Your task to perform on an android device: Clear the shopping cart on newegg.com. Image 0: 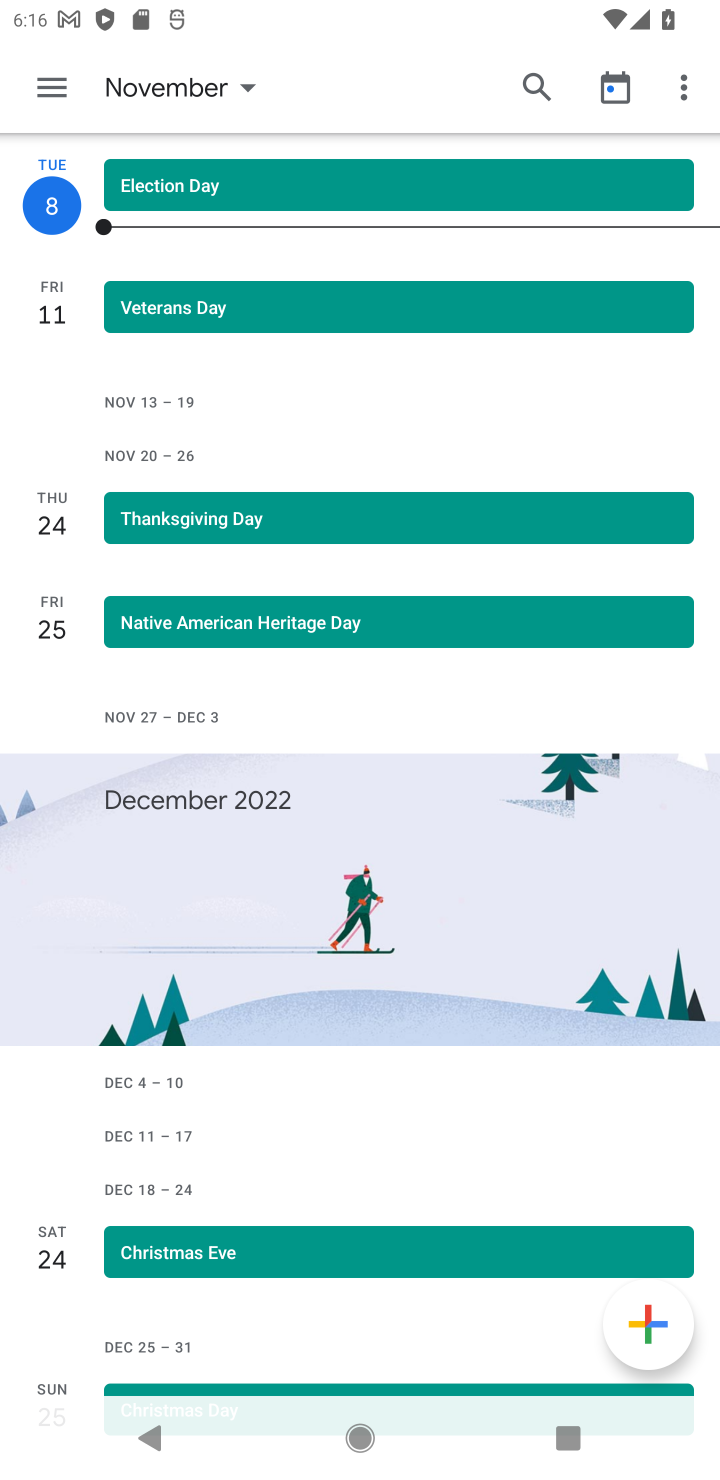
Step 0: press home button
Your task to perform on an android device: Clear the shopping cart on newegg.com. Image 1: 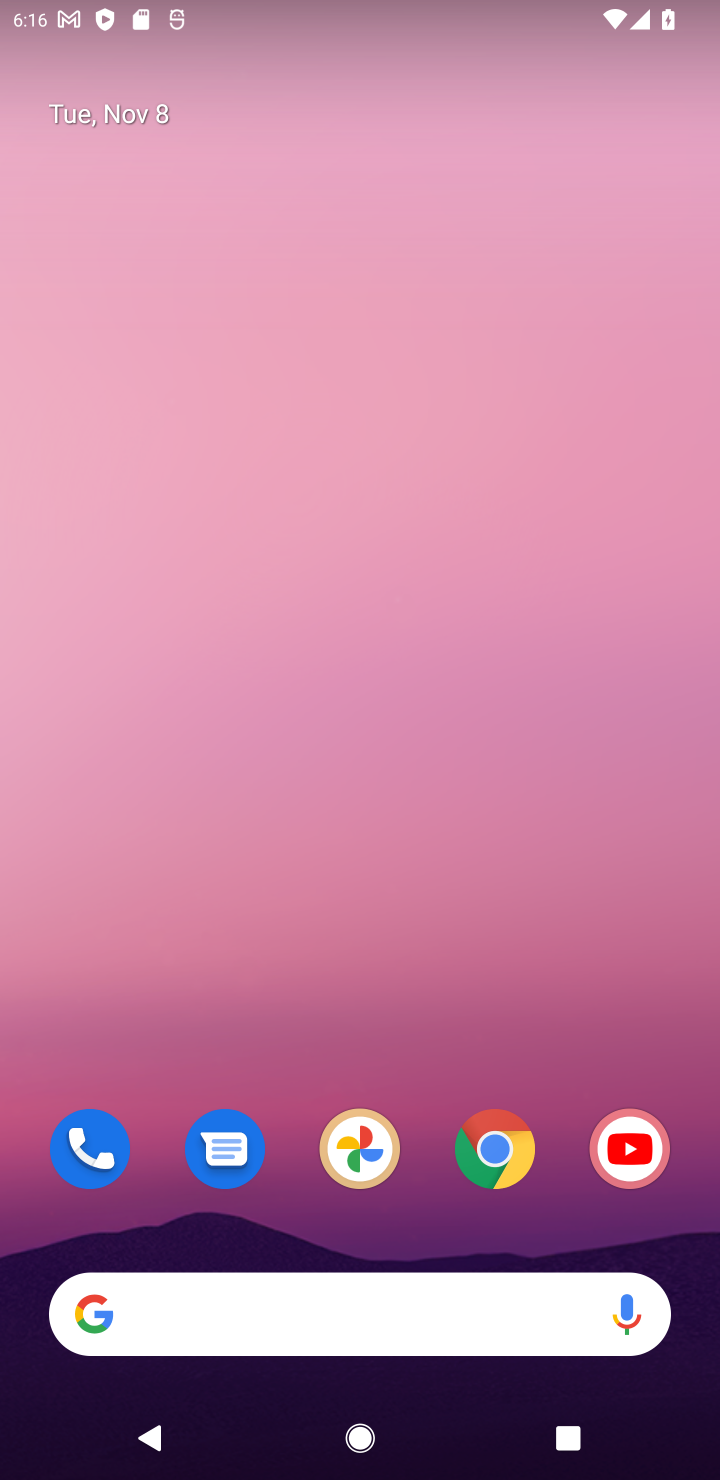
Step 1: click (510, 1177)
Your task to perform on an android device: Clear the shopping cart on newegg.com. Image 2: 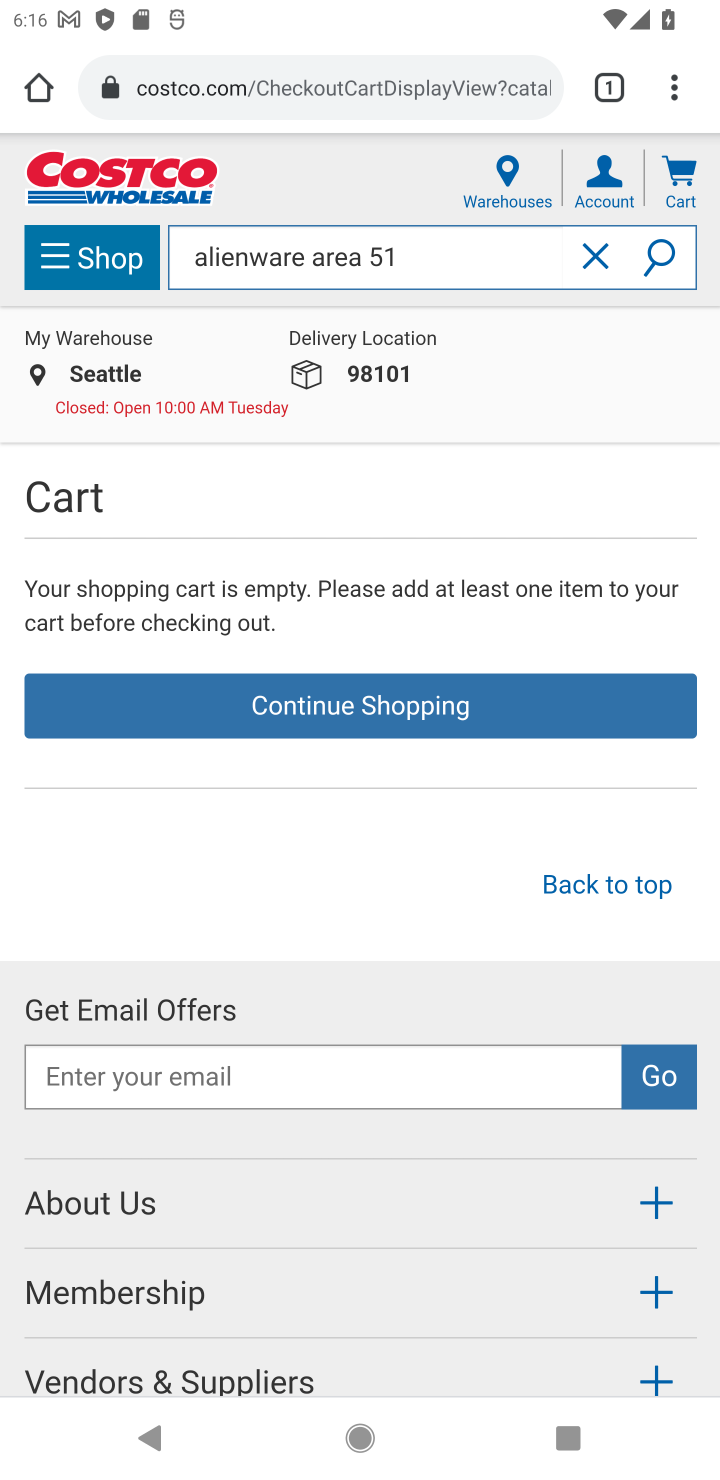
Step 2: click (344, 82)
Your task to perform on an android device: Clear the shopping cart on newegg.com. Image 3: 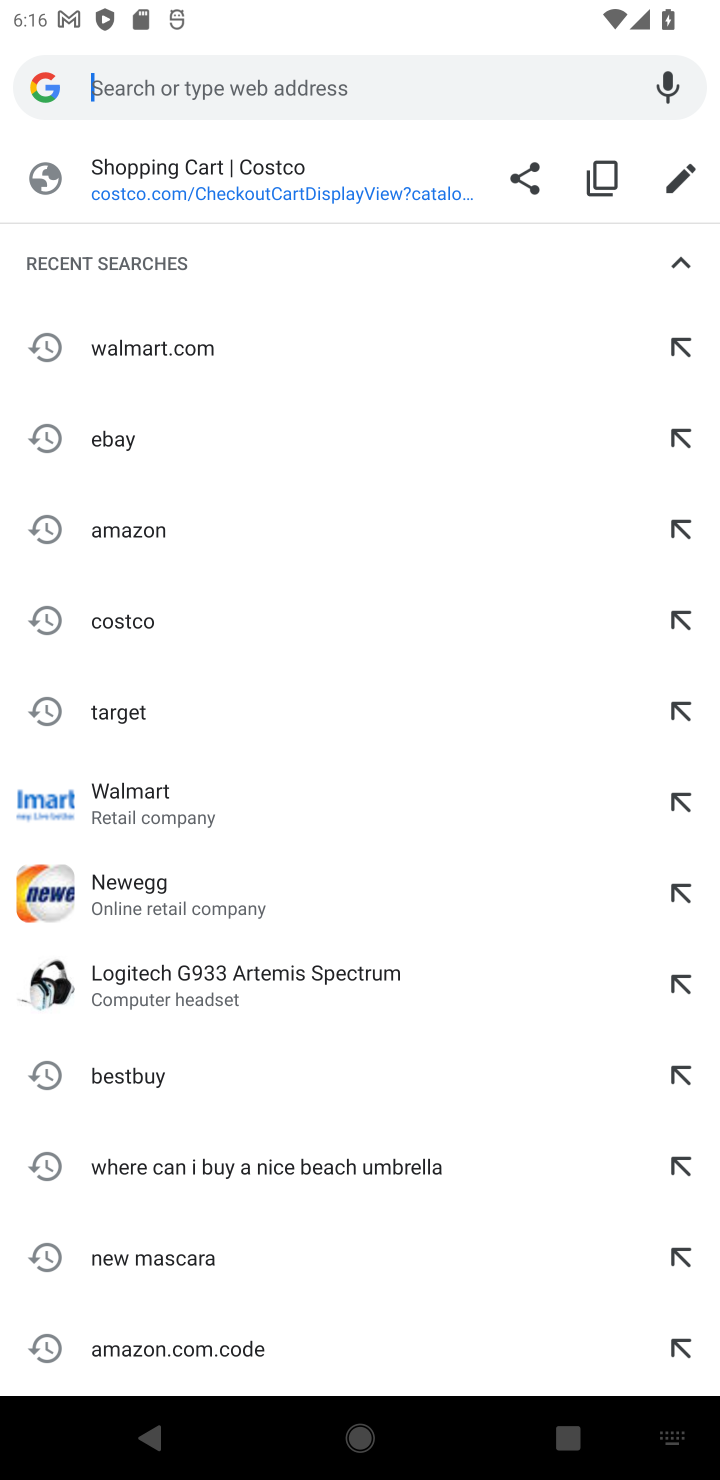
Step 3: type "newegg"
Your task to perform on an android device: Clear the shopping cart on newegg.com. Image 4: 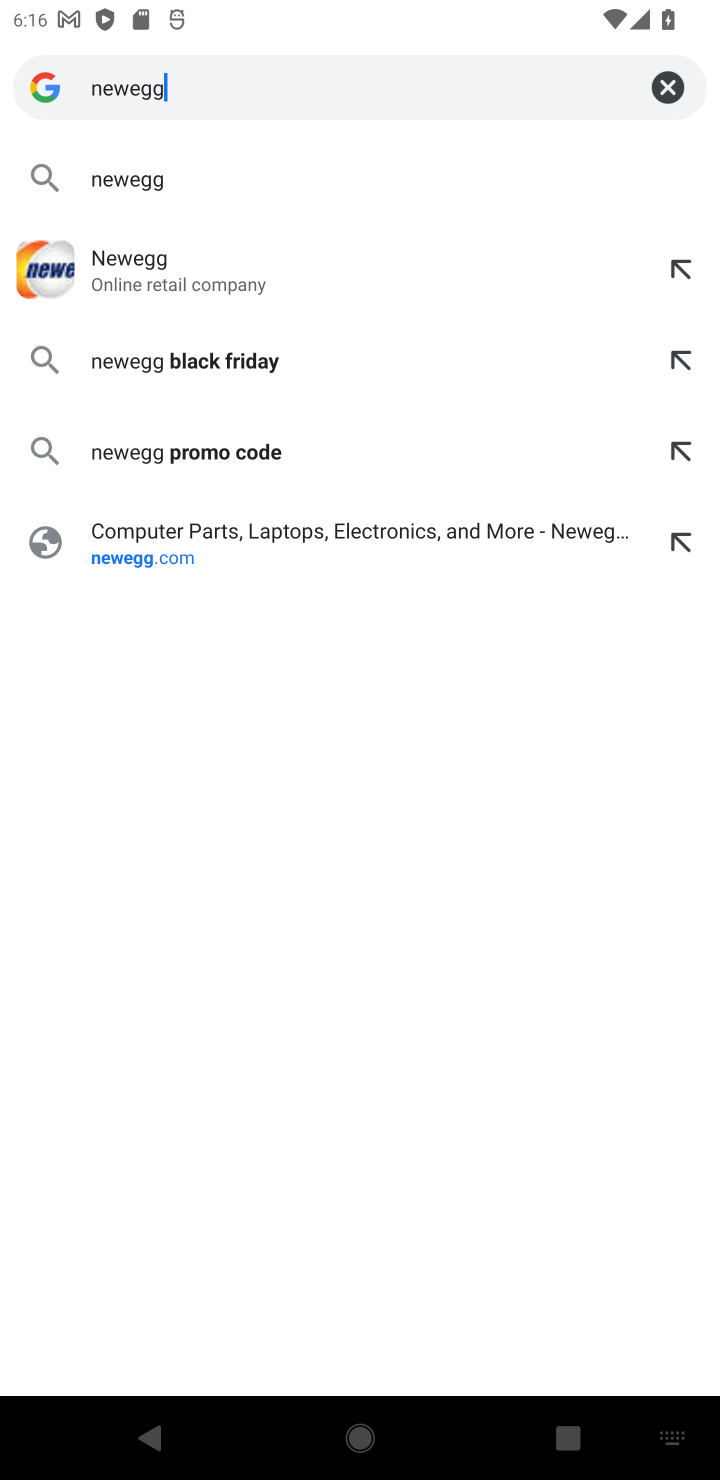
Step 4: click (150, 181)
Your task to perform on an android device: Clear the shopping cart on newegg.com. Image 5: 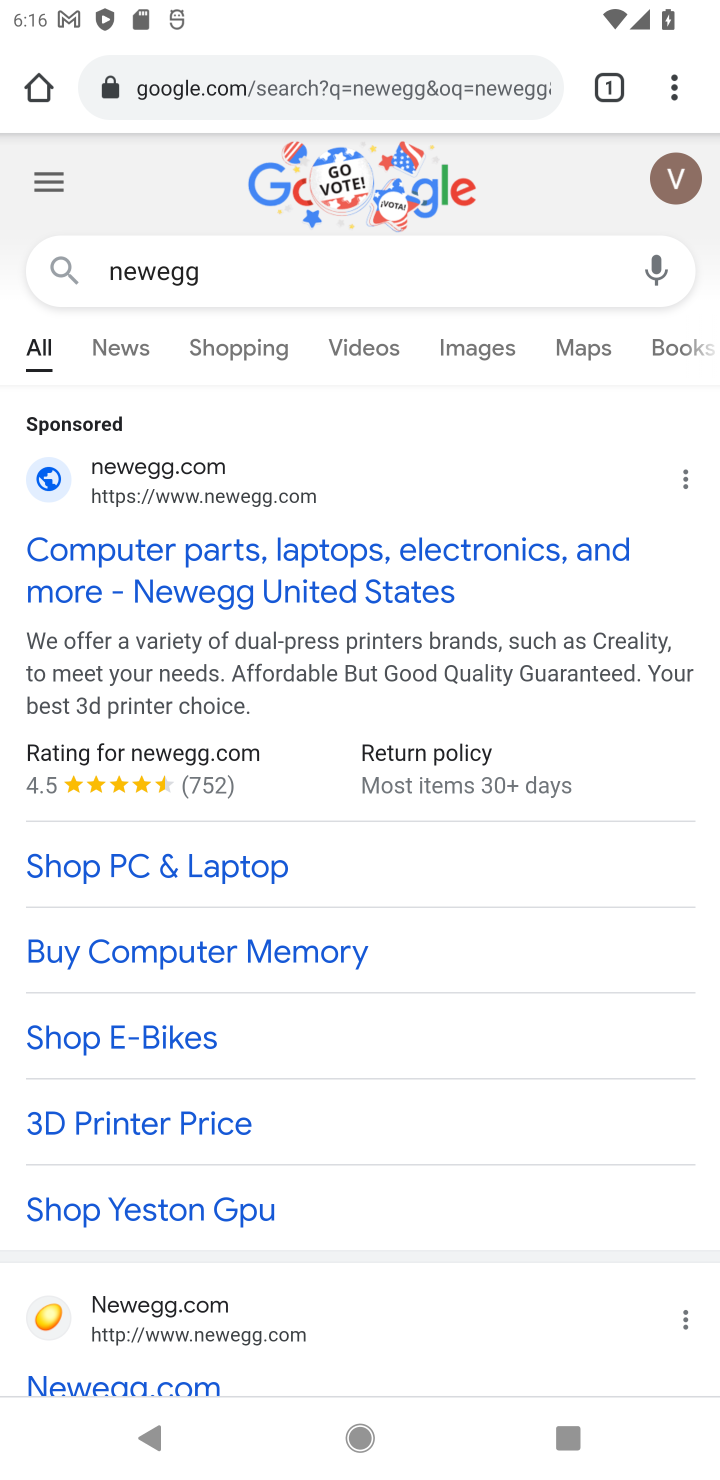
Step 5: click (226, 495)
Your task to perform on an android device: Clear the shopping cart on newegg.com. Image 6: 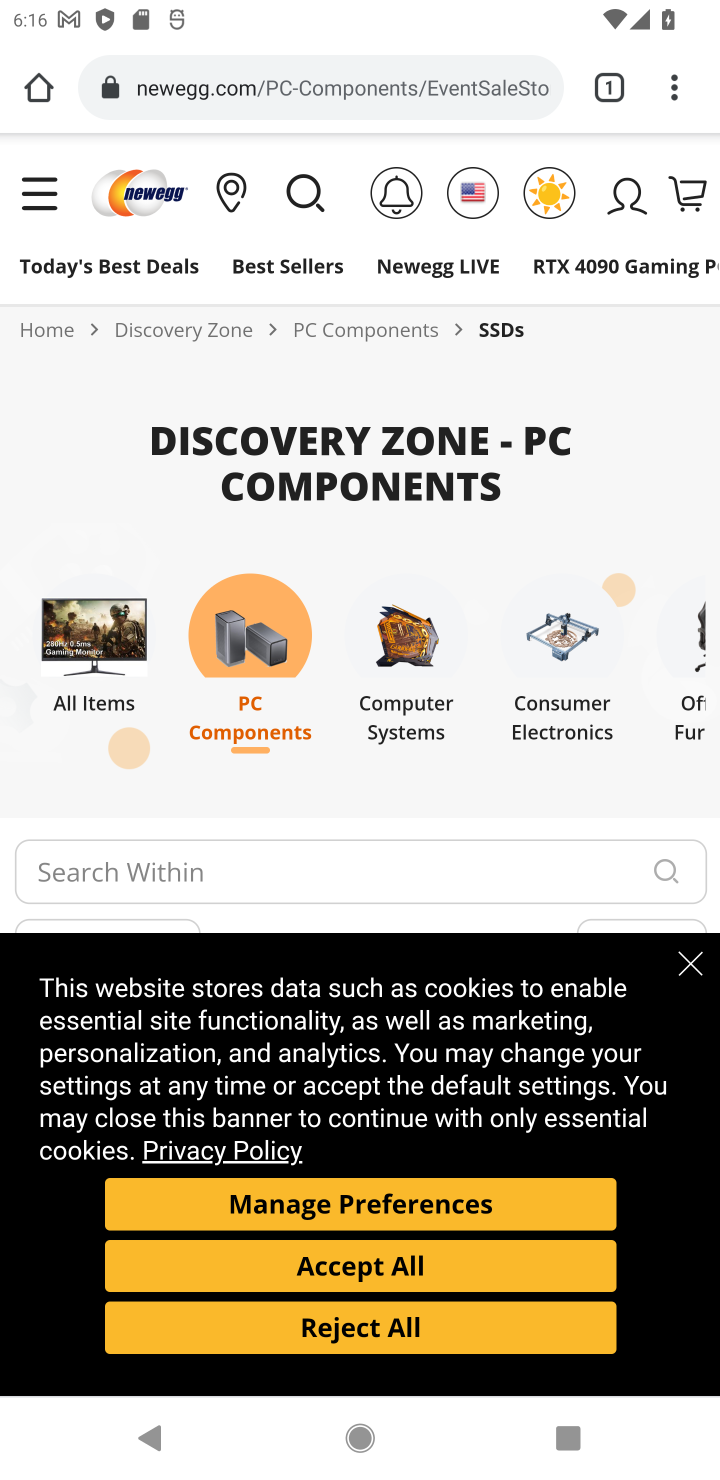
Step 6: click (686, 203)
Your task to perform on an android device: Clear the shopping cart on newegg.com. Image 7: 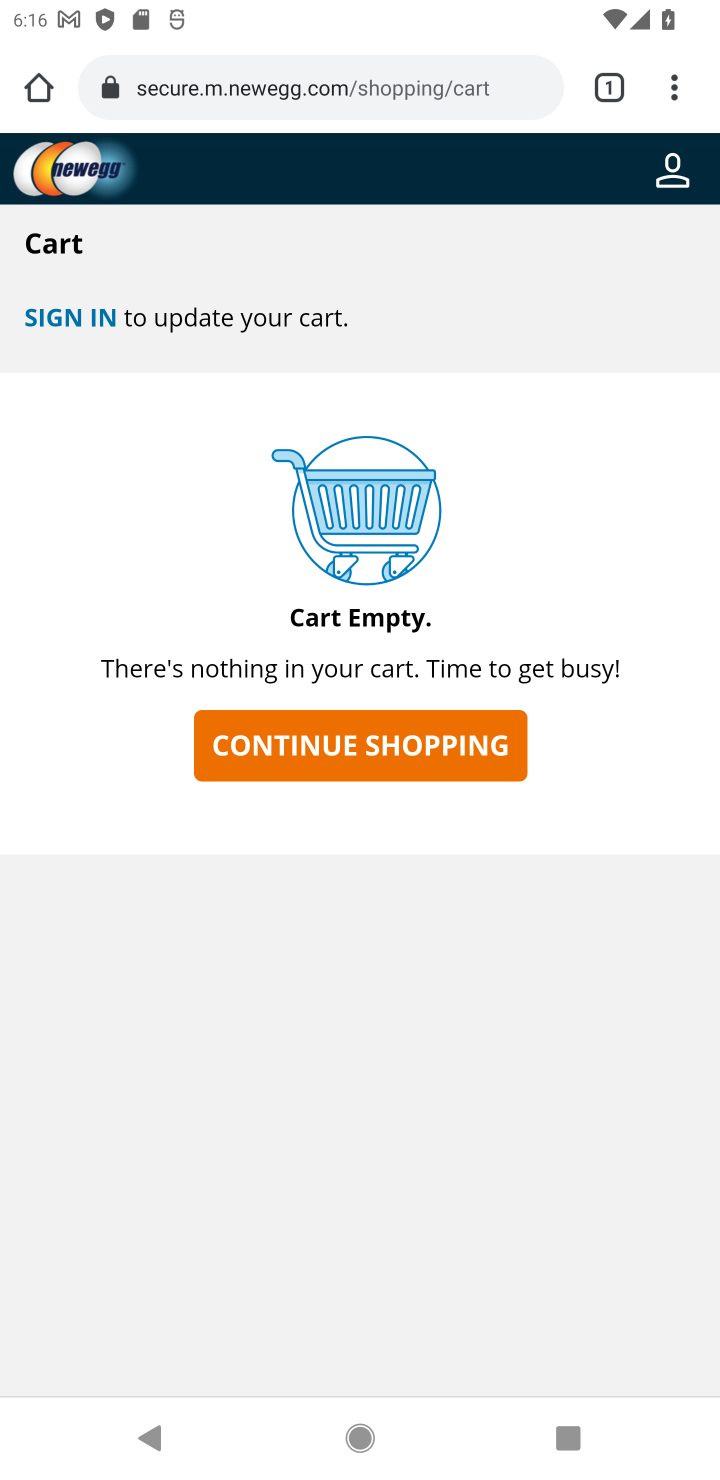
Step 7: task complete